Your task to perform on an android device: What is the recent news? Image 0: 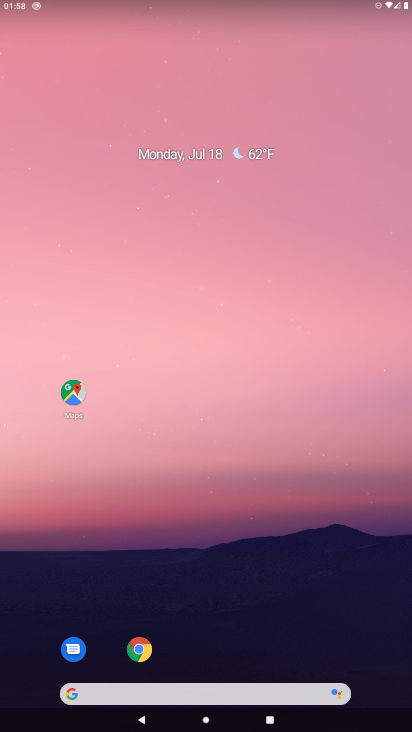
Step 0: click (94, 693)
Your task to perform on an android device: What is the recent news? Image 1: 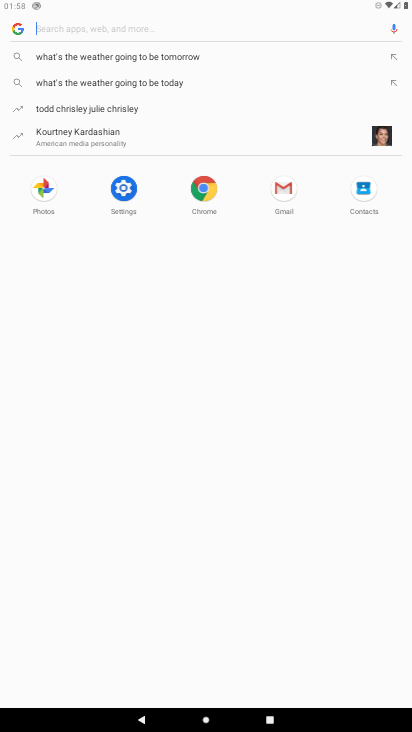
Step 1: click (86, 29)
Your task to perform on an android device: What is the recent news? Image 2: 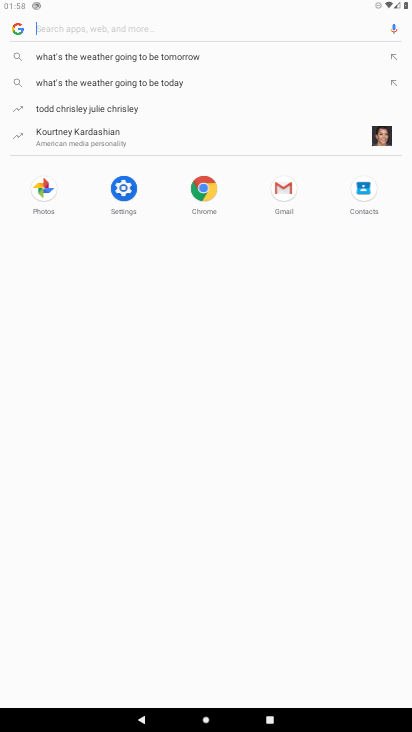
Step 2: type "What is the recent news?"
Your task to perform on an android device: What is the recent news? Image 3: 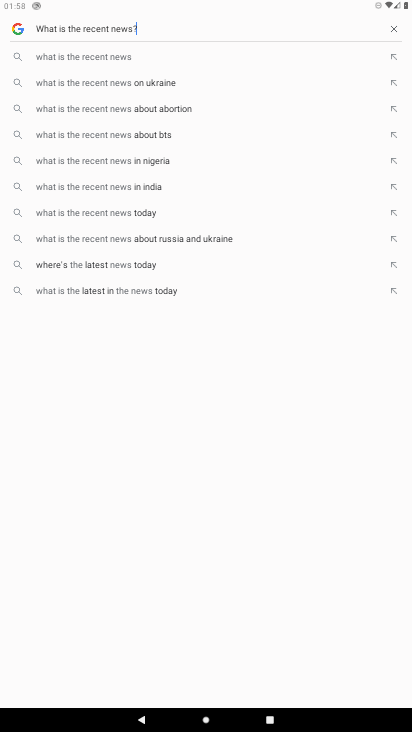
Step 3: type ""
Your task to perform on an android device: What is the recent news? Image 4: 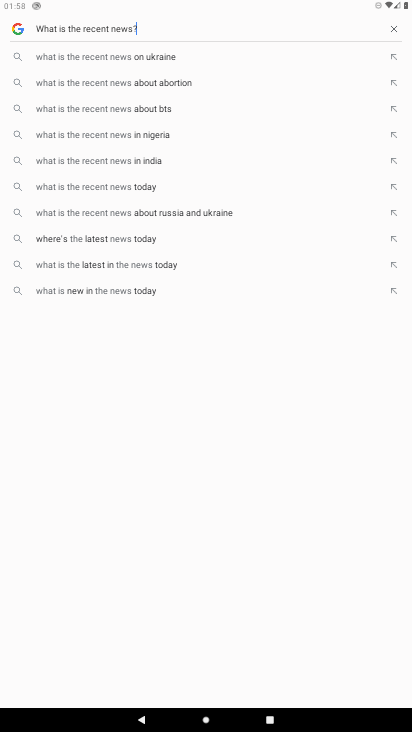
Step 4: type ""
Your task to perform on an android device: What is the recent news? Image 5: 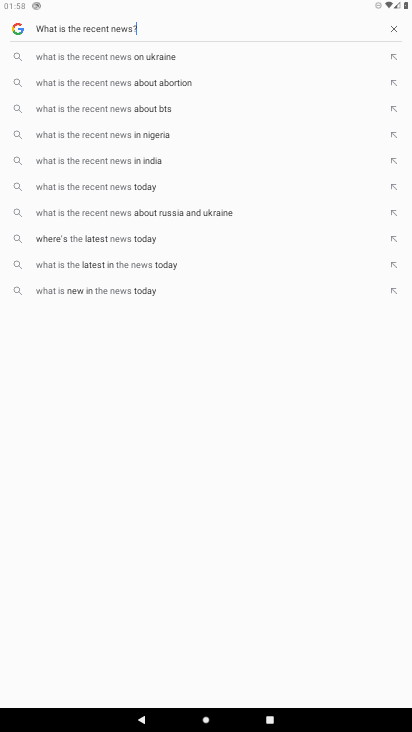
Step 5: type ""
Your task to perform on an android device: What is the recent news? Image 6: 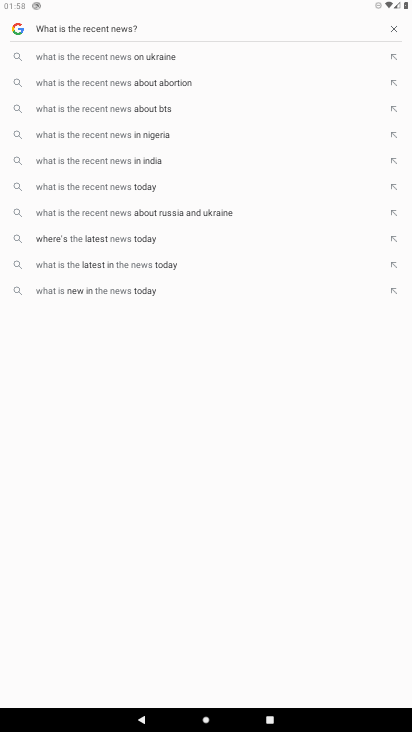
Step 6: task complete